Your task to perform on an android device: add a contact in the contacts app Image 0: 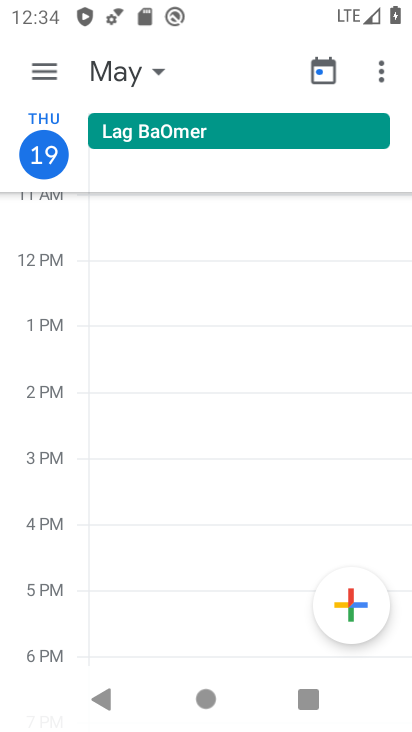
Step 0: press home button
Your task to perform on an android device: add a contact in the contacts app Image 1: 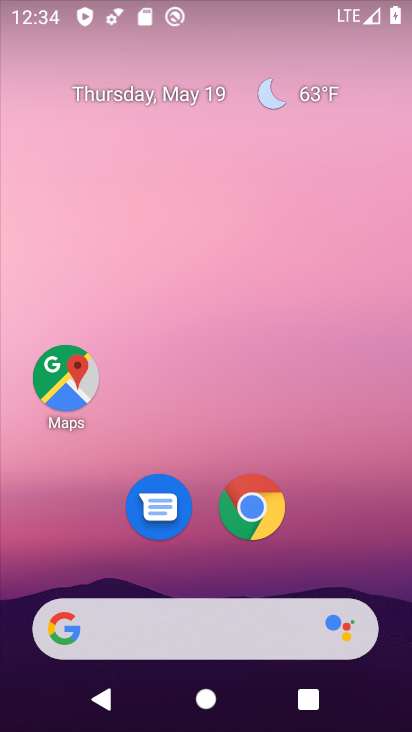
Step 1: drag from (174, 564) to (219, 241)
Your task to perform on an android device: add a contact in the contacts app Image 2: 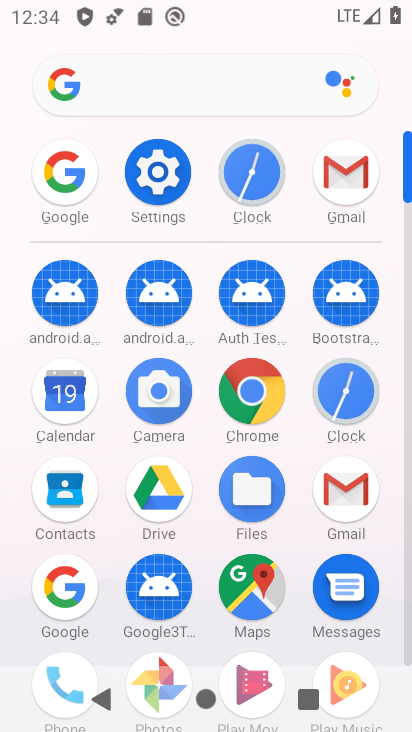
Step 2: click (79, 674)
Your task to perform on an android device: add a contact in the contacts app Image 3: 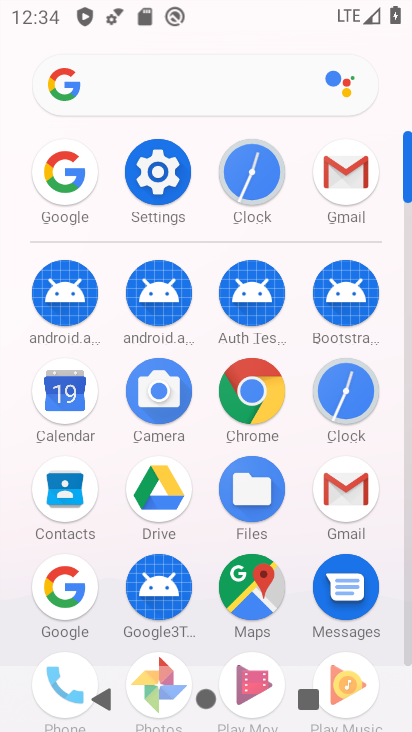
Step 3: click (52, 500)
Your task to perform on an android device: add a contact in the contacts app Image 4: 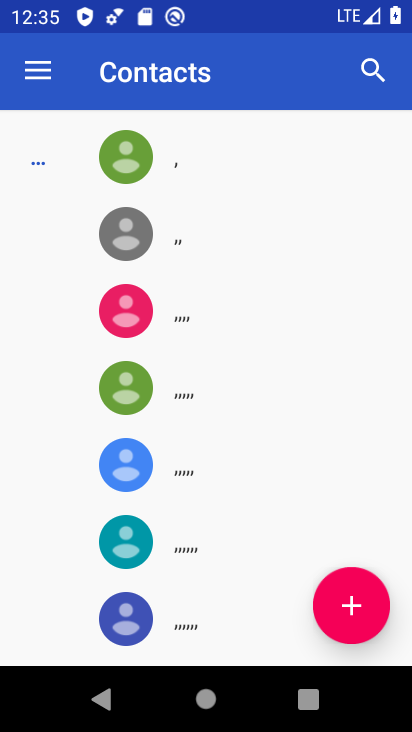
Step 4: click (366, 603)
Your task to perform on an android device: add a contact in the contacts app Image 5: 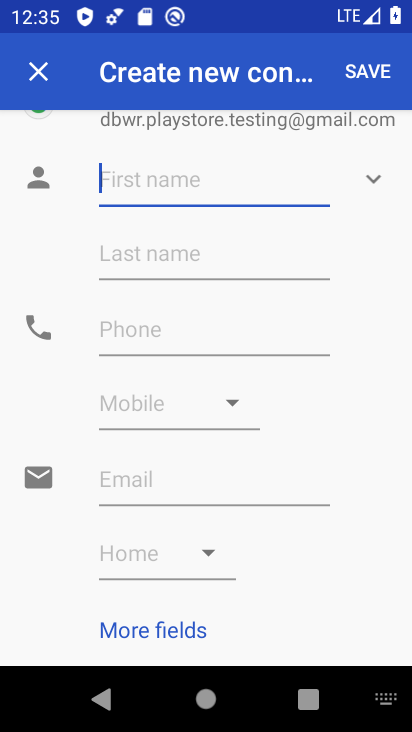
Step 5: type "lina"
Your task to perform on an android device: add a contact in the contacts app Image 6: 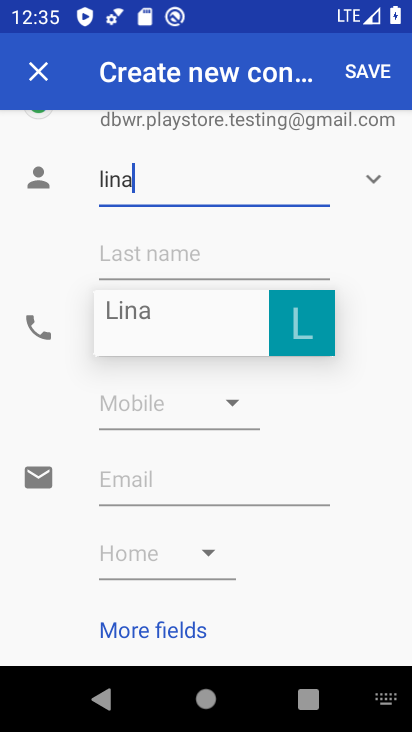
Step 6: click (125, 302)
Your task to perform on an android device: add a contact in the contacts app Image 7: 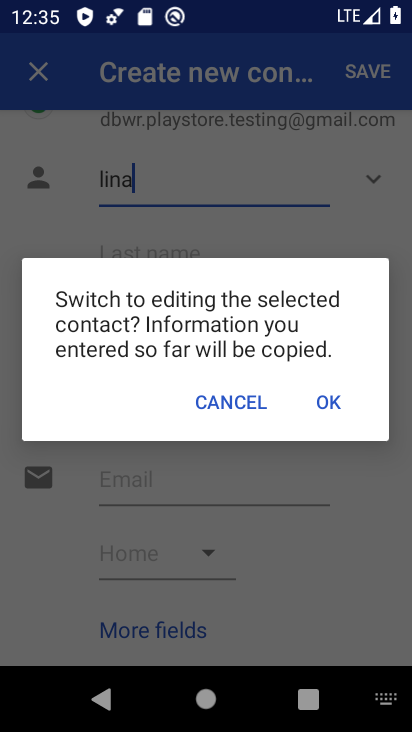
Step 7: click (329, 403)
Your task to perform on an android device: add a contact in the contacts app Image 8: 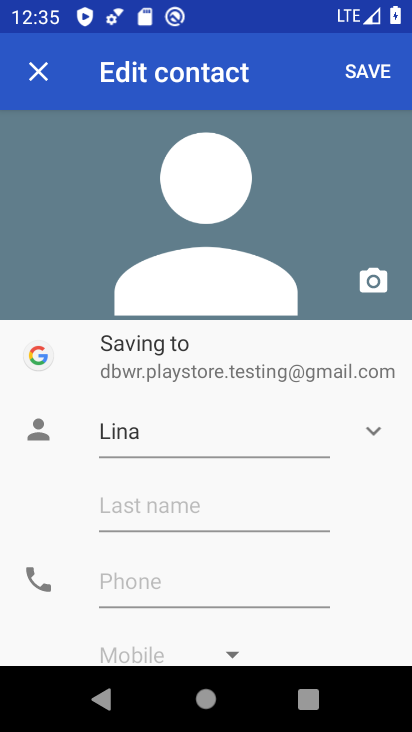
Step 8: click (141, 512)
Your task to perform on an android device: add a contact in the contacts app Image 9: 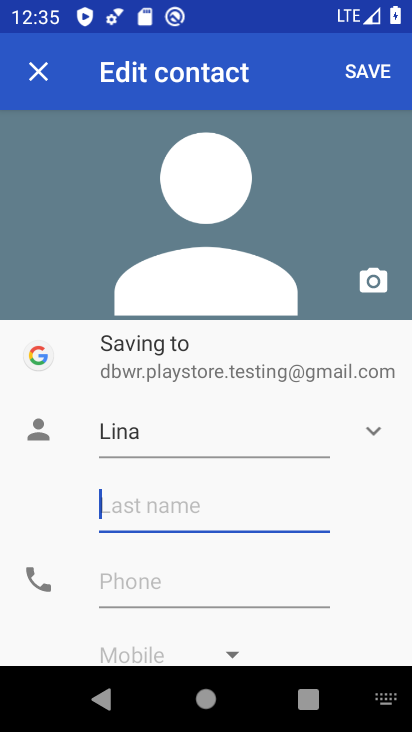
Step 9: type "lopa"
Your task to perform on an android device: add a contact in the contacts app Image 10: 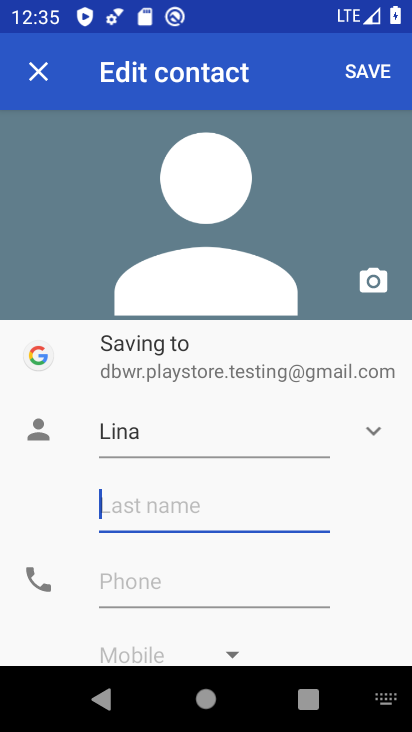
Step 10: click (162, 583)
Your task to perform on an android device: add a contact in the contacts app Image 11: 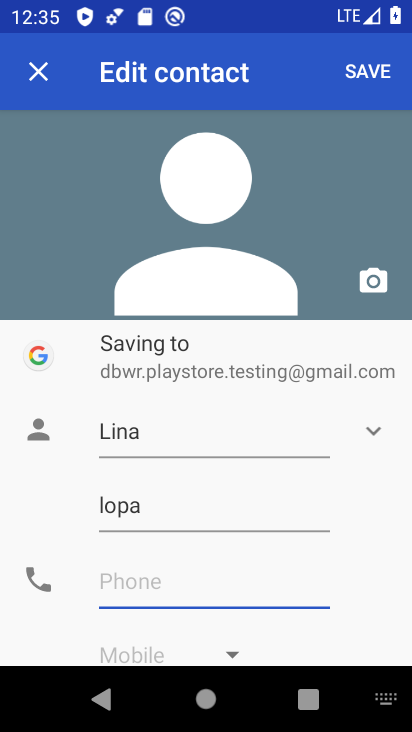
Step 11: type "9898978786"
Your task to perform on an android device: add a contact in the contacts app Image 12: 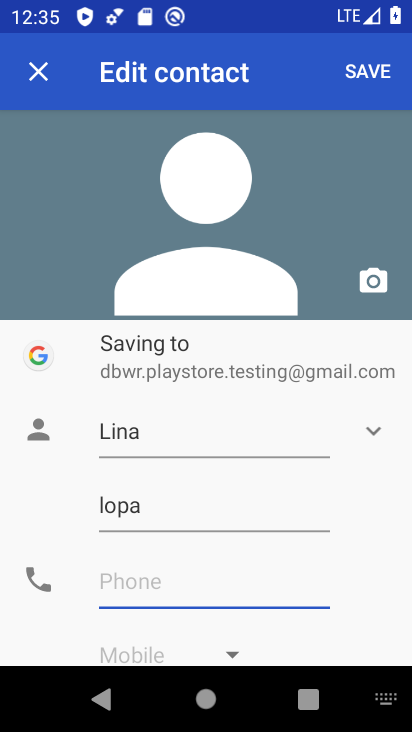
Step 12: click (232, 652)
Your task to perform on an android device: add a contact in the contacts app Image 13: 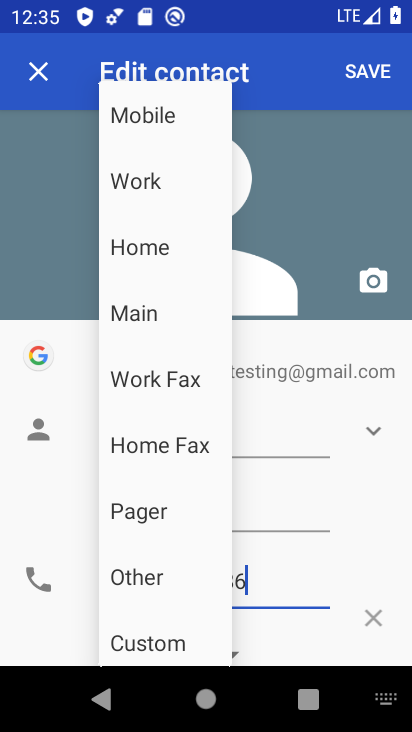
Step 13: click (172, 105)
Your task to perform on an android device: add a contact in the contacts app Image 14: 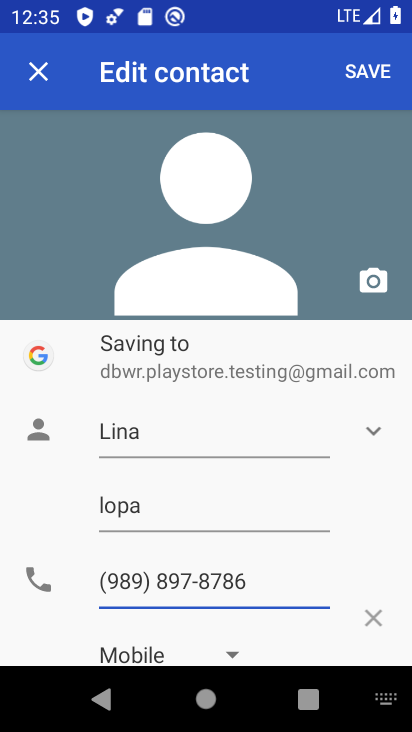
Step 14: drag from (246, 603) to (263, 325)
Your task to perform on an android device: add a contact in the contacts app Image 15: 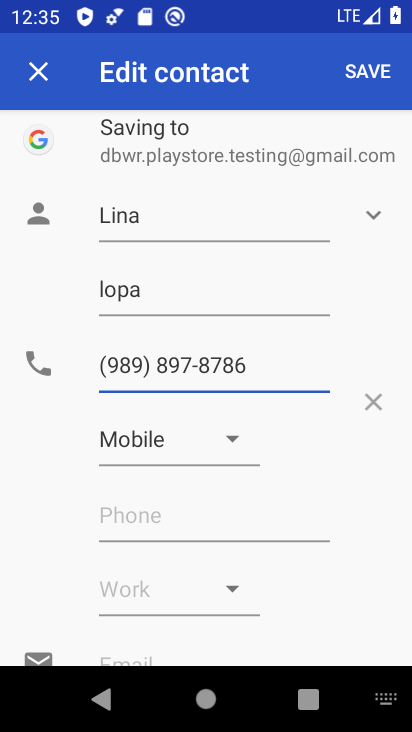
Step 15: click (365, 66)
Your task to perform on an android device: add a contact in the contacts app Image 16: 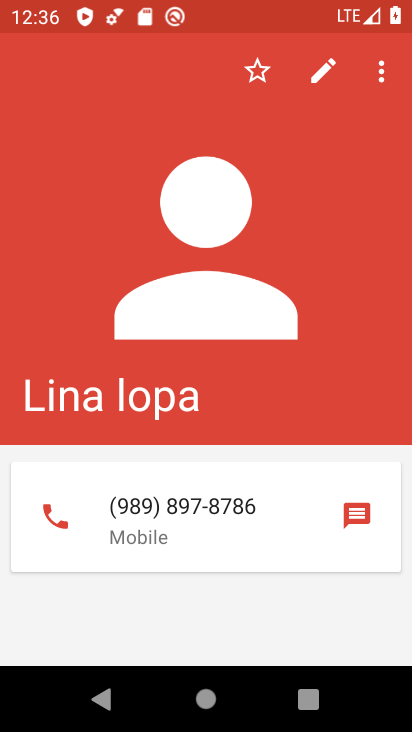
Step 16: task complete